Your task to perform on an android device: Go to settings Image 0: 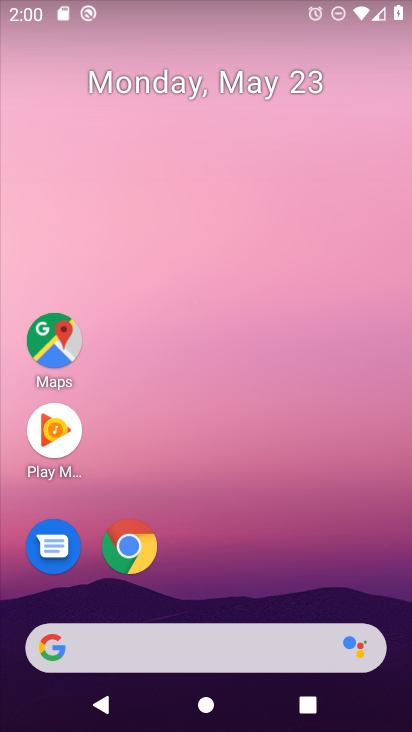
Step 0: drag from (207, 607) to (205, 267)
Your task to perform on an android device: Go to settings Image 1: 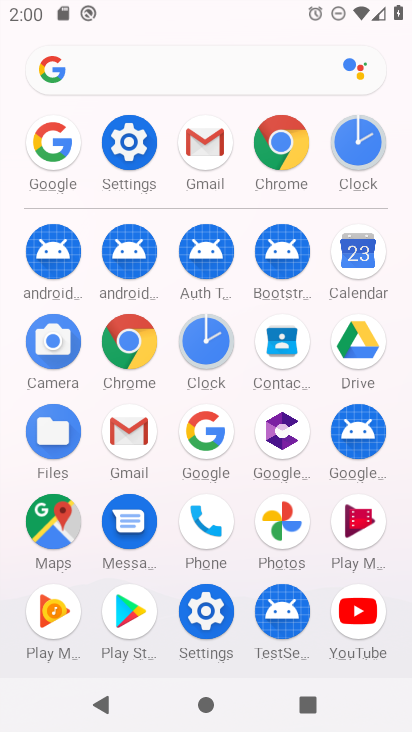
Step 1: click (138, 135)
Your task to perform on an android device: Go to settings Image 2: 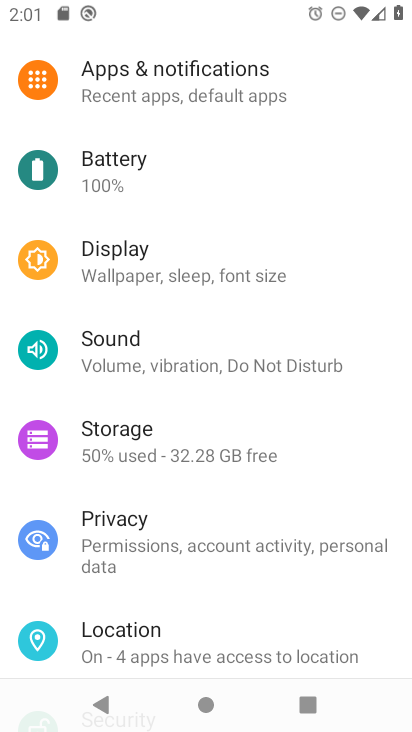
Step 2: task complete